Your task to perform on an android device: check android version Image 0: 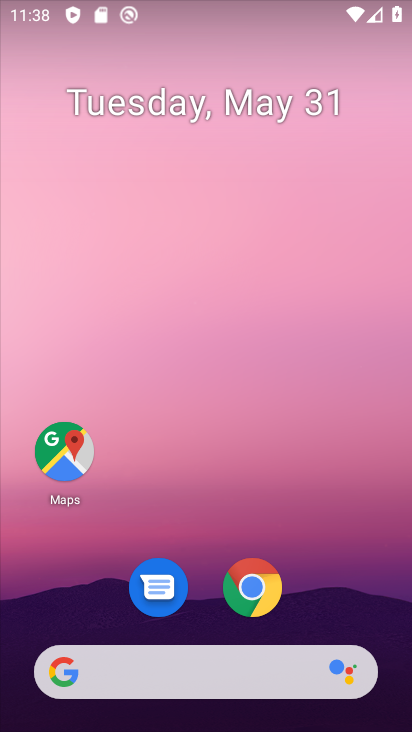
Step 0: drag from (345, 600) to (311, 169)
Your task to perform on an android device: check android version Image 1: 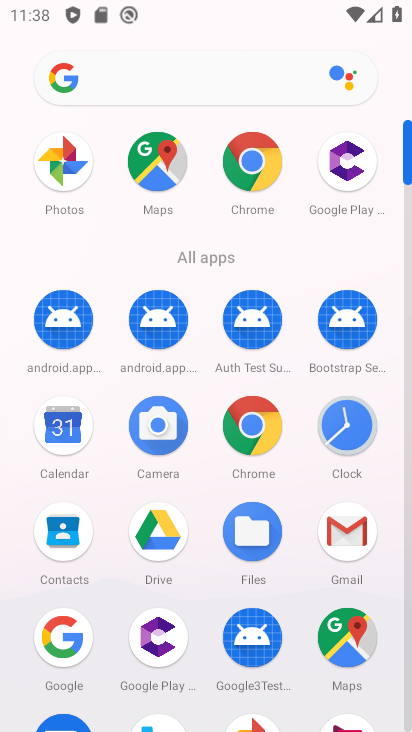
Step 1: click (407, 684)
Your task to perform on an android device: check android version Image 2: 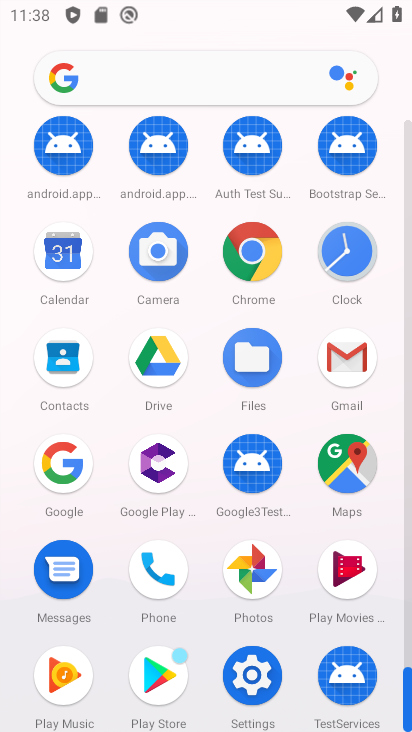
Step 2: click (251, 669)
Your task to perform on an android device: check android version Image 3: 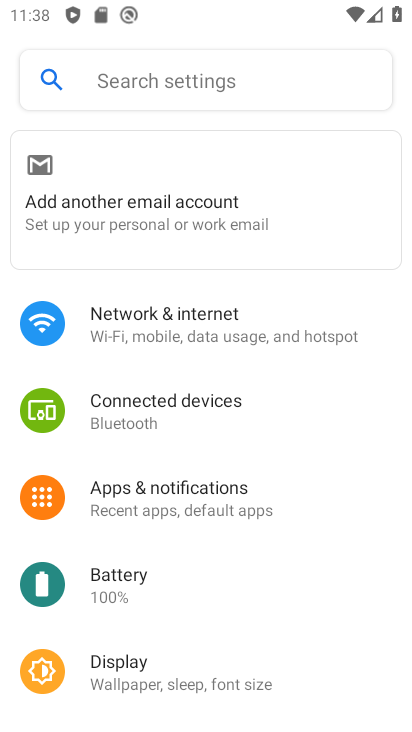
Step 3: drag from (251, 669) to (243, 311)
Your task to perform on an android device: check android version Image 4: 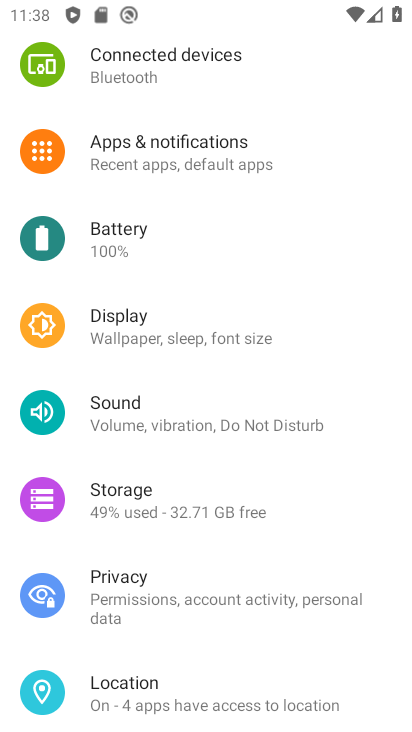
Step 4: drag from (185, 623) to (161, 243)
Your task to perform on an android device: check android version Image 5: 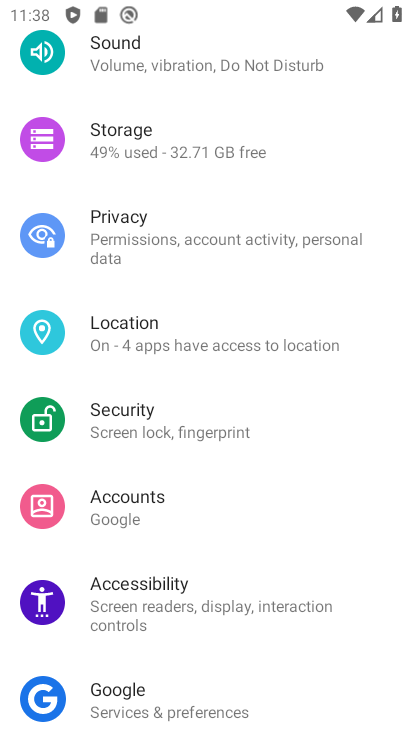
Step 5: drag from (171, 605) to (210, 190)
Your task to perform on an android device: check android version Image 6: 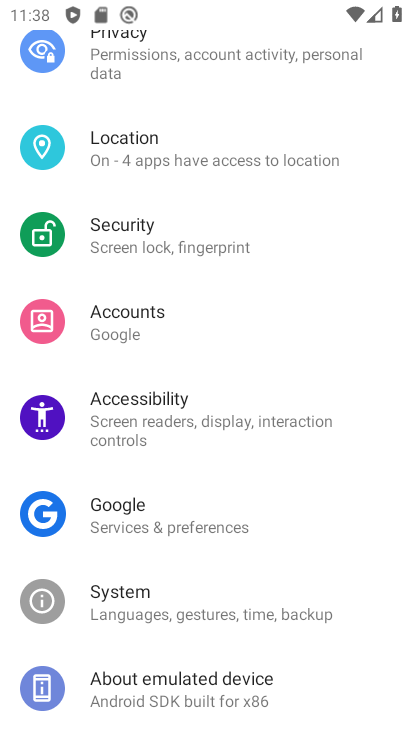
Step 6: drag from (242, 692) to (258, 385)
Your task to perform on an android device: check android version Image 7: 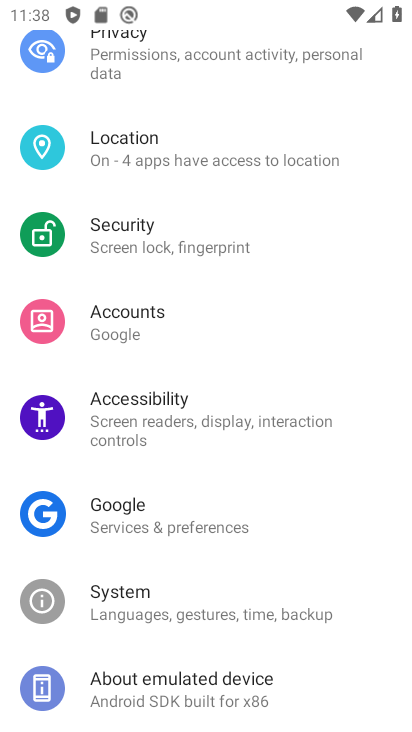
Step 7: click (230, 668)
Your task to perform on an android device: check android version Image 8: 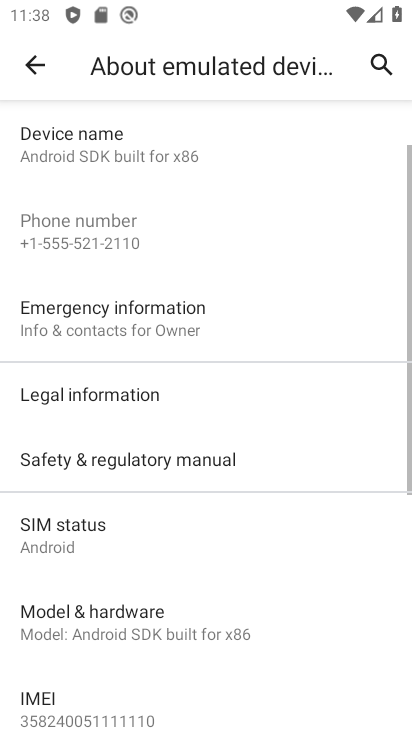
Step 8: drag from (230, 668) to (229, 304)
Your task to perform on an android device: check android version Image 9: 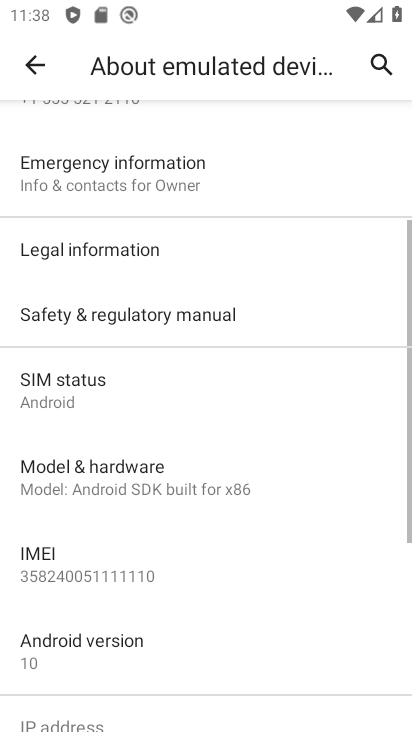
Step 9: click (207, 673)
Your task to perform on an android device: check android version Image 10: 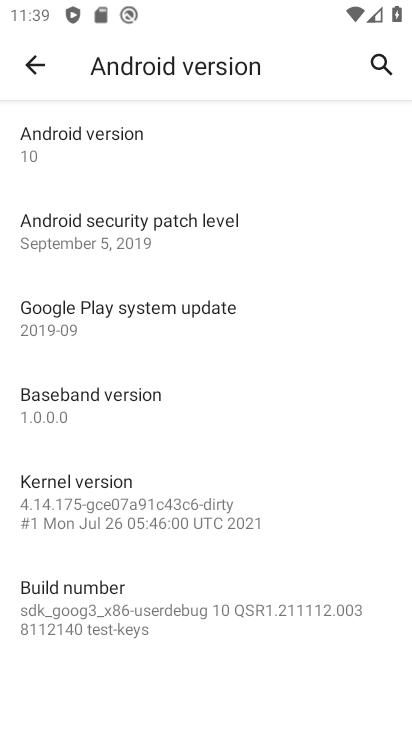
Step 10: task complete